Your task to perform on an android device: turn off javascript in the chrome app Image 0: 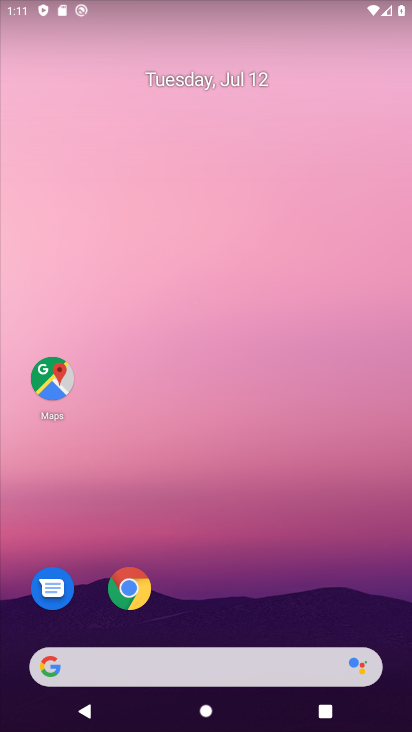
Step 0: drag from (221, 515) to (227, 33)
Your task to perform on an android device: turn off javascript in the chrome app Image 1: 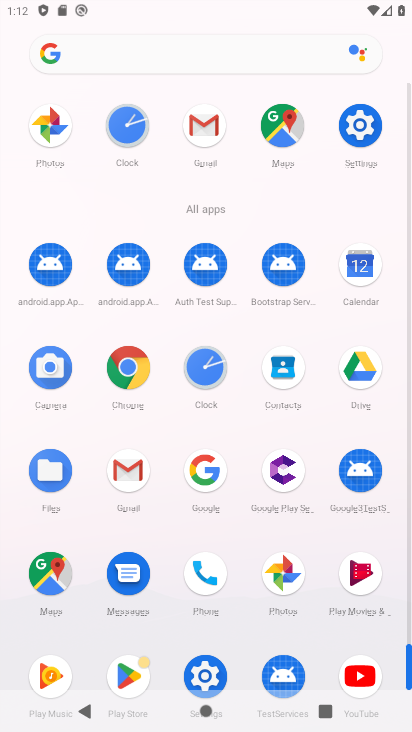
Step 1: click (222, 230)
Your task to perform on an android device: turn off javascript in the chrome app Image 2: 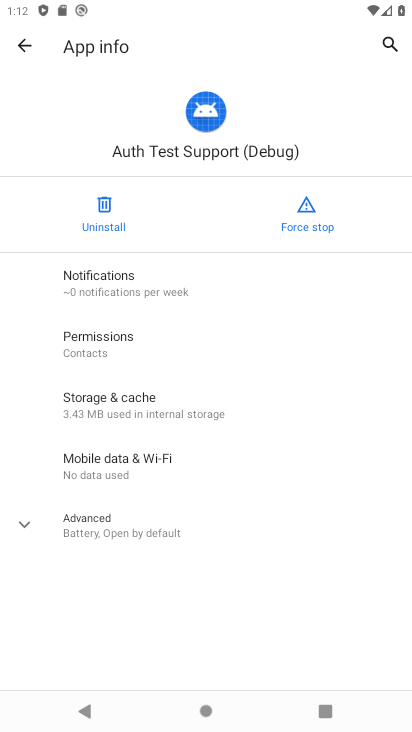
Step 2: press home button
Your task to perform on an android device: turn off javascript in the chrome app Image 3: 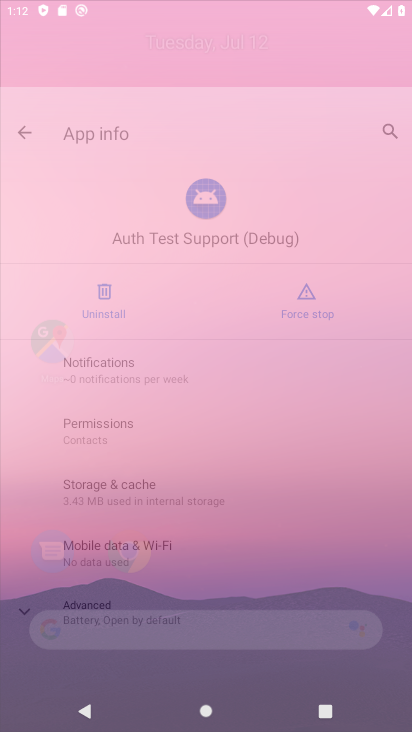
Step 3: drag from (196, 628) to (192, 163)
Your task to perform on an android device: turn off javascript in the chrome app Image 4: 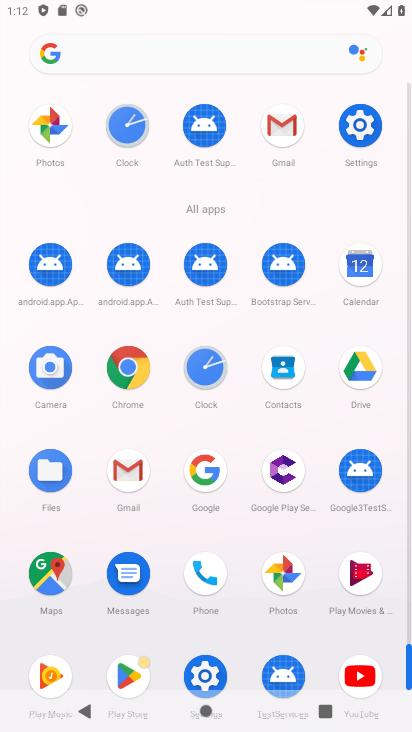
Step 4: click (119, 369)
Your task to perform on an android device: turn off javascript in the chrome app Image 5: 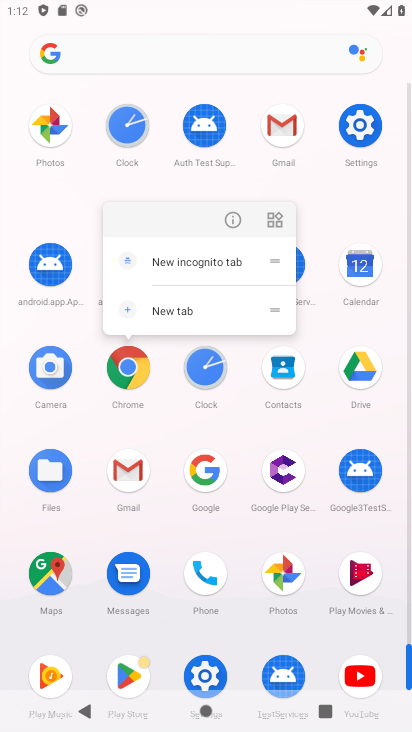
Step 5: click (230, 216)
Your task to perform on an android device: turn off javascript in the chrome app Image 6: 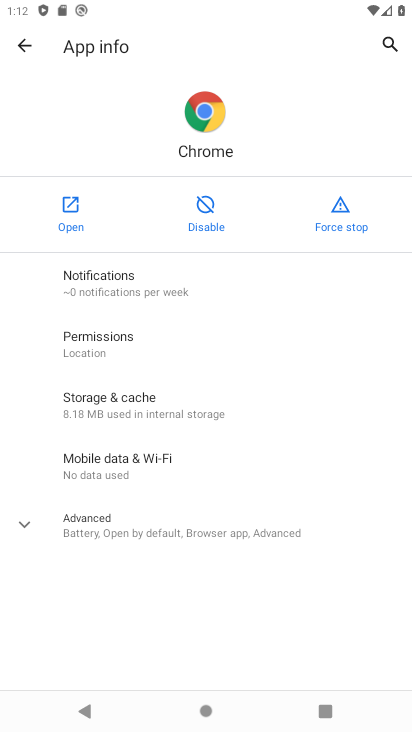
Step 6: click (90, 228)
Your task to perform on an android device: turn off javascript in the chrome app Image 7: 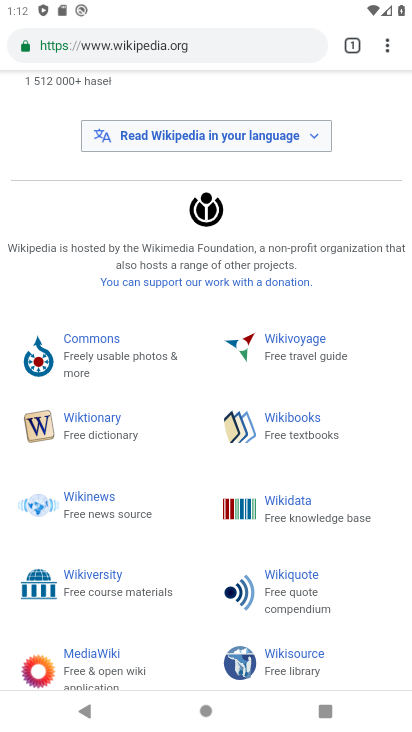
Step 7: drag from (239, 92) to (202, 355)
Your task to perform on an android device: turn off javascript in the chrome app Image 8: 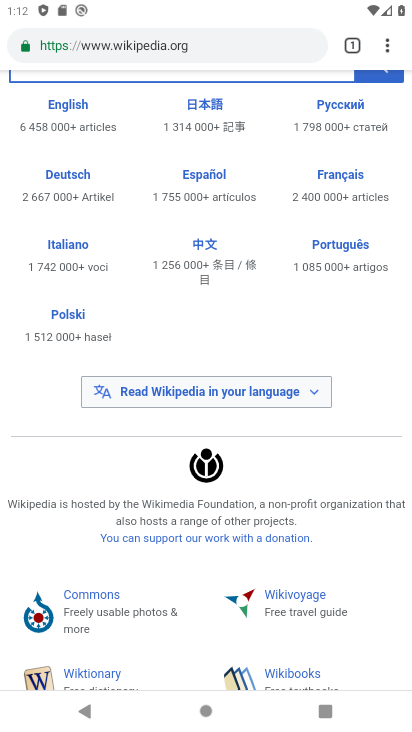
Step 8: drag from (165, 133) to (189, 655)
Your task to perform on an android device: turn off javascript in the chrome app Image 9: 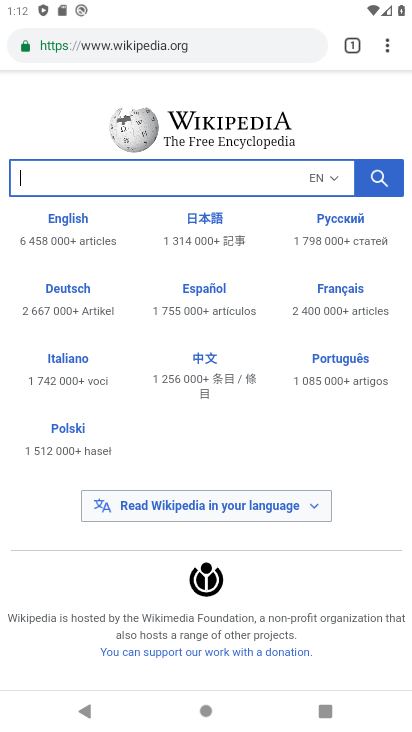
Step 9: click (389, 47)
Your task to perform on an android device: turn off javascript in the chrome app Image 10: 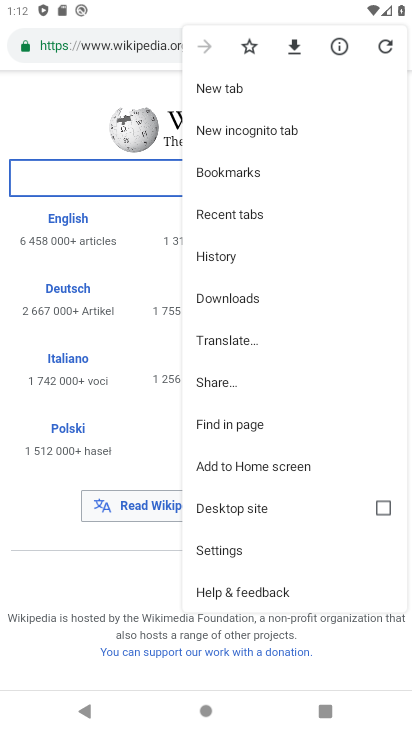
Step 10: click (252, 553)
Your task to perform on an android device: turn off javascript in the chrome app Image 11: 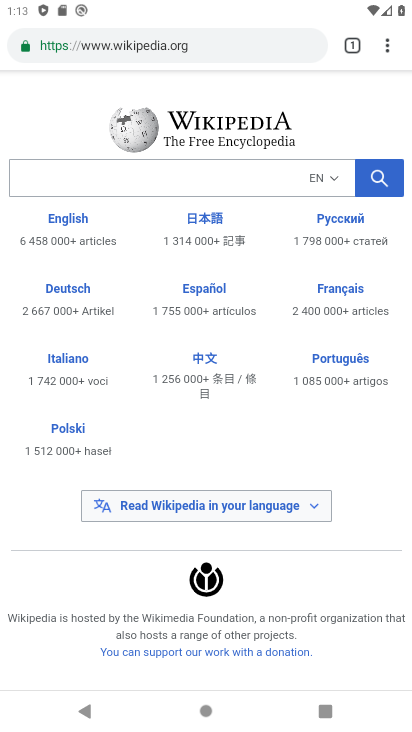
Step 11: click (250, 553)
Your task to perform on an android device: turn off javascript in the chrome app Image 12: 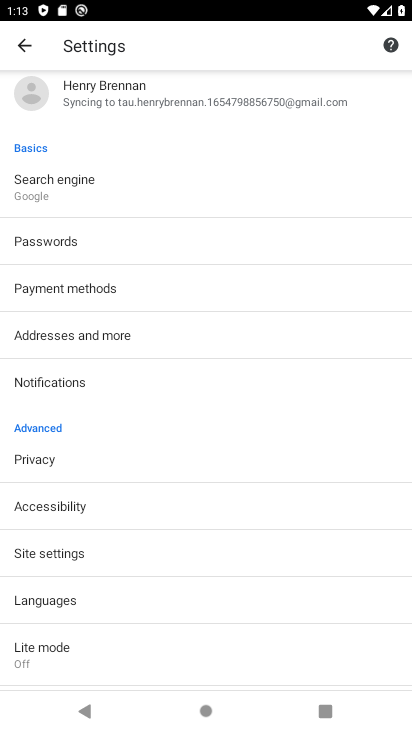
Step 12: click (77, 558)
Your task to perform on an android device: turn off javascript in the chrome app Image 13: 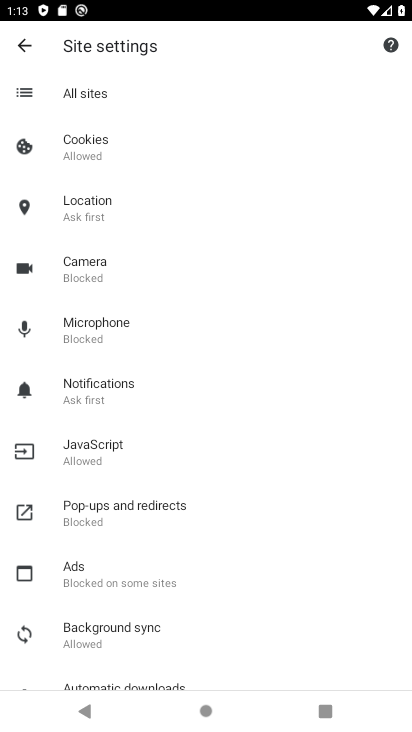
Step 13: click (163, 438)
Your task to perform on an android device: turn off javascript in the chrome app Image 14: 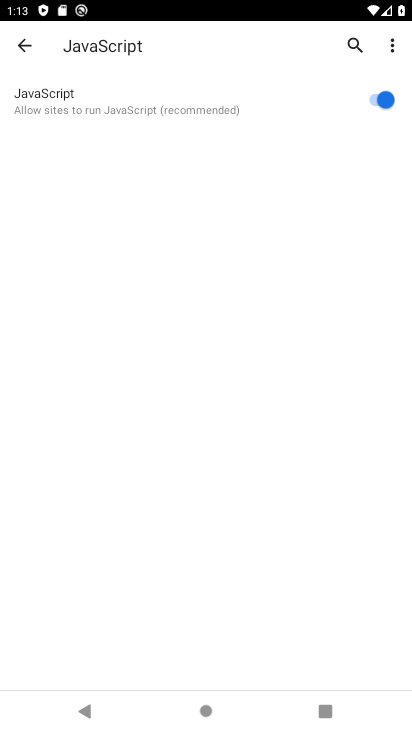
Step 14: click (369, 101)
Your task to perform on an android device: turn off javascript in the chrome app Image 15: 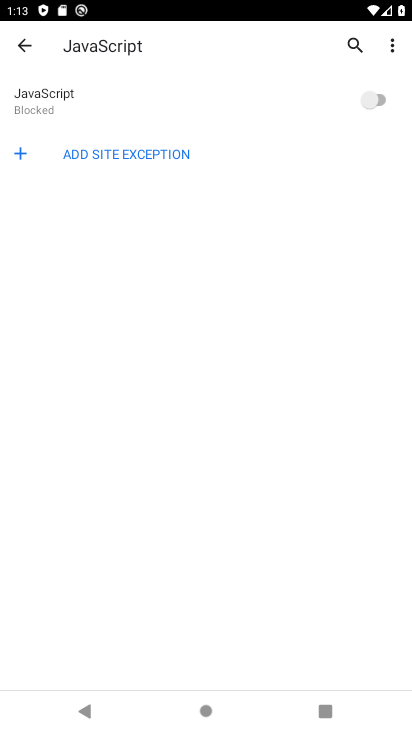
Step 15: task complete